Your task to perform on an android device: empty trash in the gmail app Image 0: 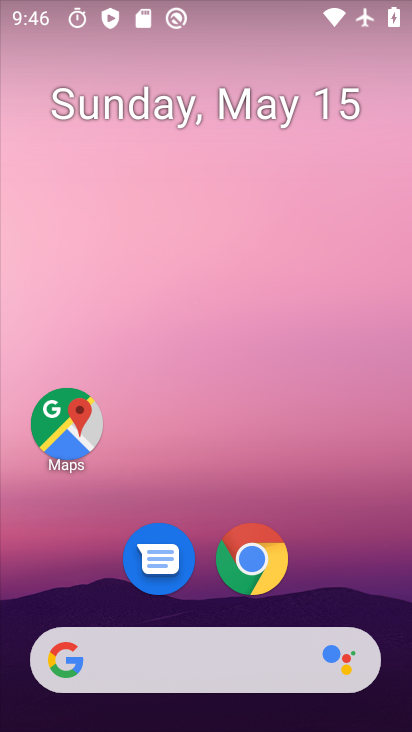
Step 0: drag from (302, 590) to (162, 18)
Your task to perform on an android device: empty trash in the gmail app Image 1: 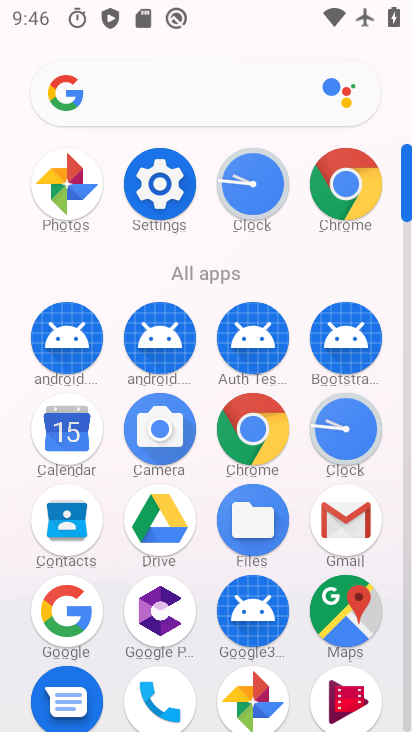
Step 1: click (350, 519)
Your task to perform on an android device: empty trash in the gmail app Image 2: 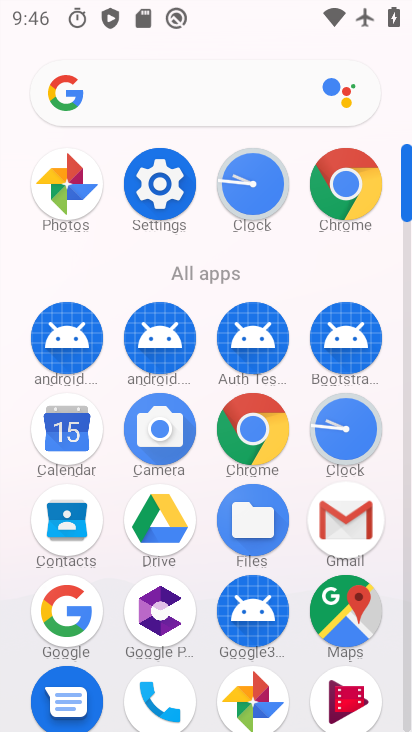
Step 2: click (350, 519)
Your task to perform on an android device: empty trash in the gmail app Image 3: 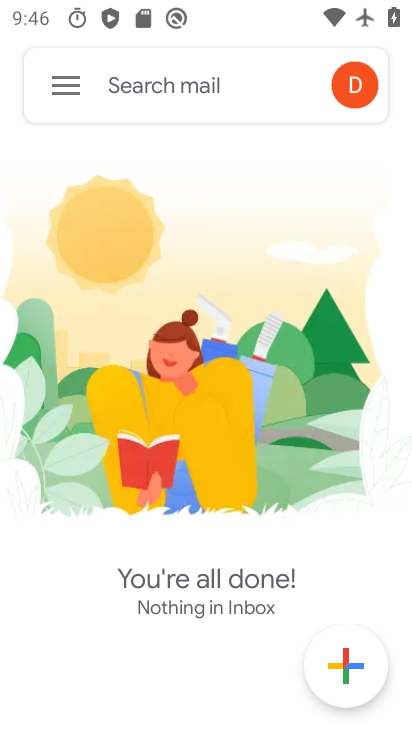
Step 3: click (346, 519)
Your task to perform on an android device: empty trash in the gmail app Image 4: 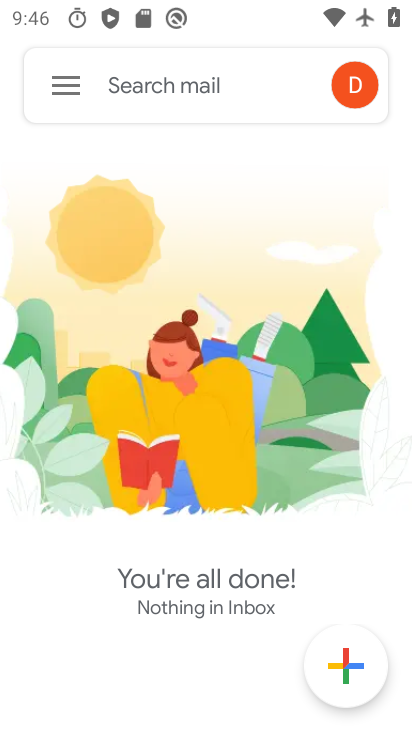
Step 4: click (60, 72)
Your task to perform on an android device: empty trash in the gmail app Image 5: 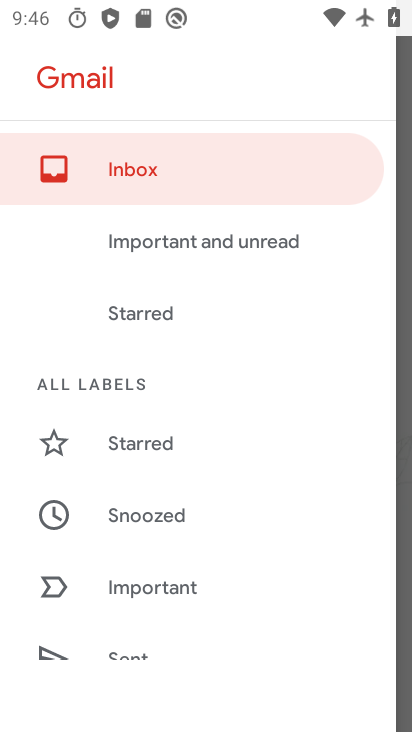
Step 5: drag from (171, 581) to (159, 275)
Your task to perform on an android device: empty trash in the gmail app Image 6: 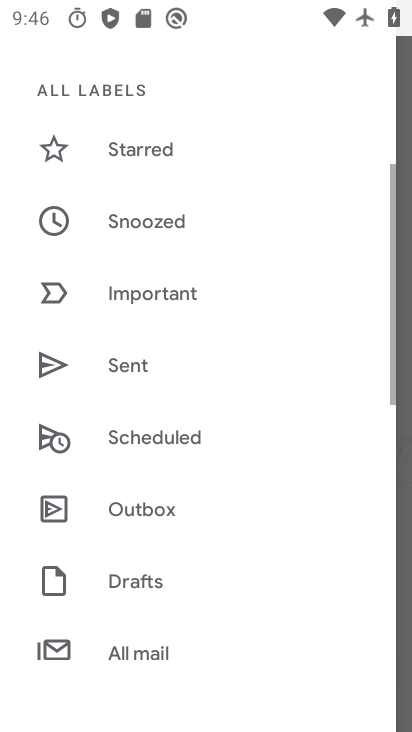
Step 6: drag from (176, 491) to (170, 261)
Your task to perform on an android device: empty trash in the gmail app Image 7: 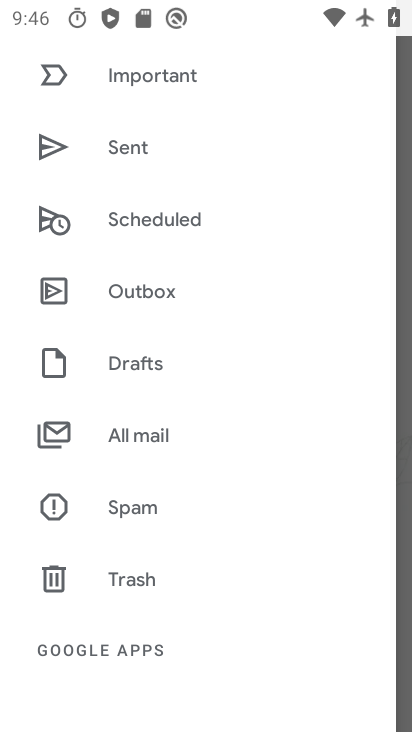
Step 7: click (140, 568)
Your task to perform on an android device: empty trash in the gmail app Image 8: 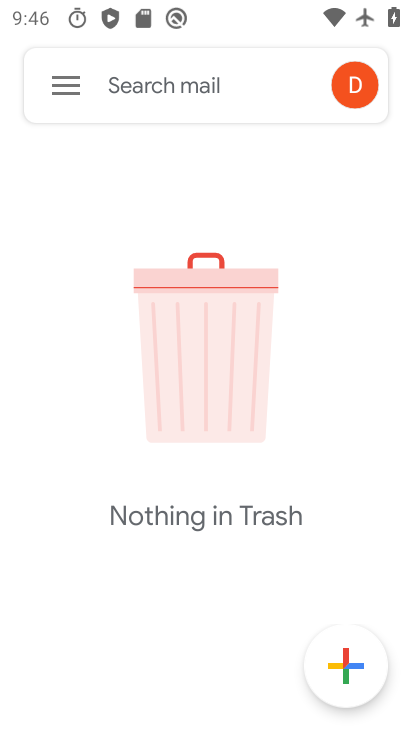
Step 8: click (145, 582)
Your task to perform on an android device: empty trash in the gmail app Image 9: 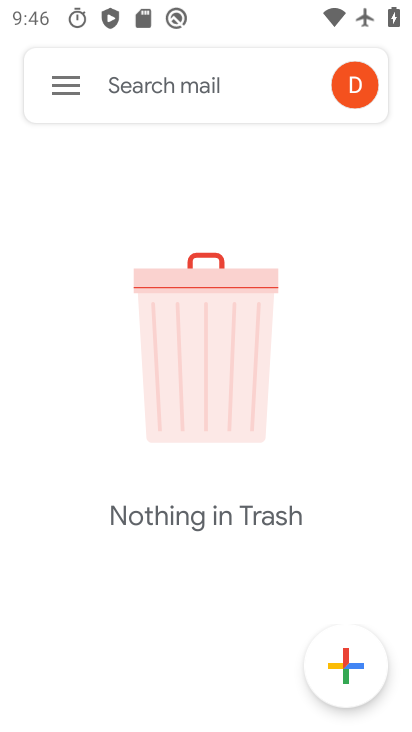
Step 9: task complete